Your task to perform on an android device: turn off notifications settings in the gmail app Image 0: 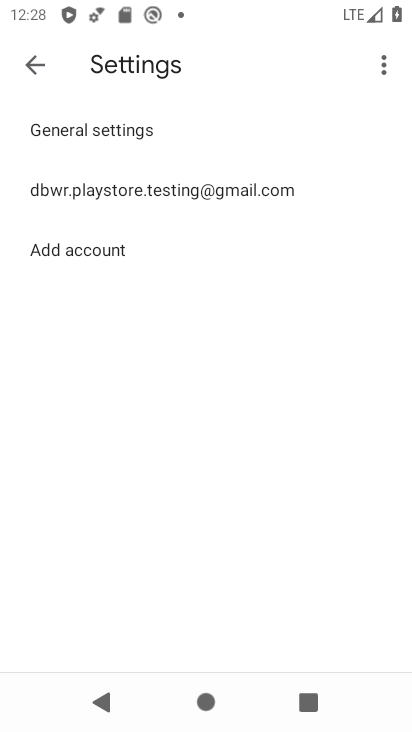
Step 0: press home button
Your task to perform on an android device: turn off notifications settings in the gmail app Image 1: 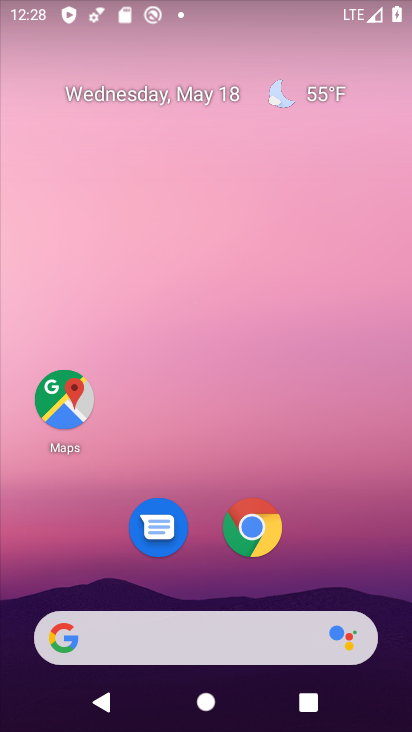
Step 1: drag from (305, 383) to (215, 19)
Your task to perform on an android device: turn off notifications settings in the gmail app Image 2: 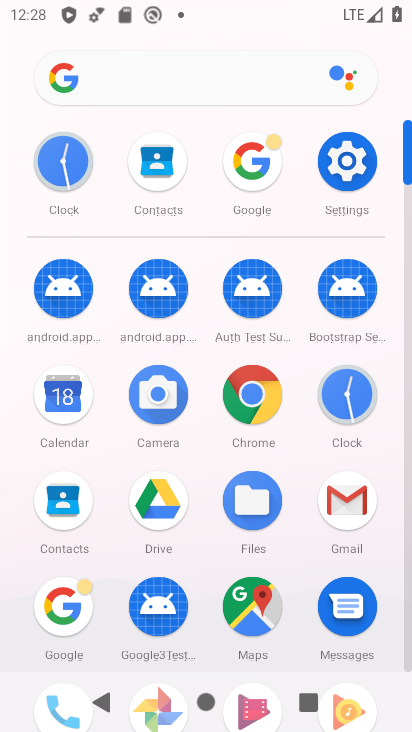
Step 2: click (333, 503)
Your task to perform on an android device: turn off notifications settings in the gmail app Image 3: 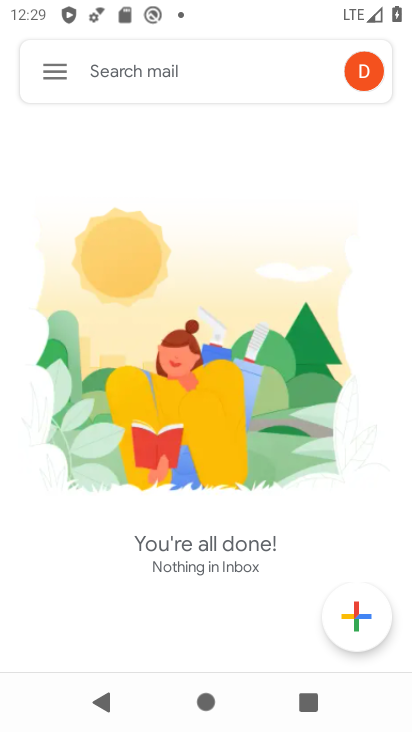
Step 3: click (57, 70)
Your task to perform on an android device: turn off notifications settings in the gmail app Image 4: 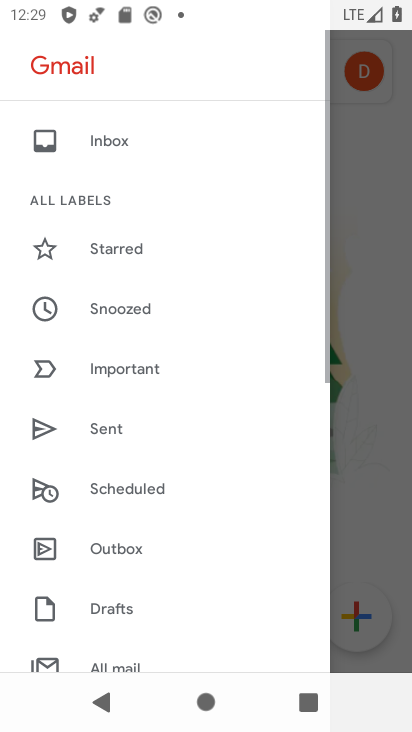
Step 4: drag from (167, 626) to (167, 193)
Your task to perform on an android device: turn off notifications settings in the gmail app Image 5: 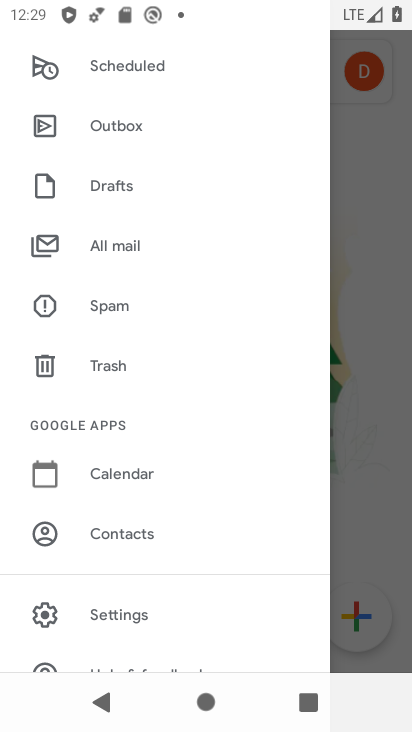
Step 5: click (133, 607)
Your task to perform on an android device: turn off notifications settings in the gmail app Image 6: 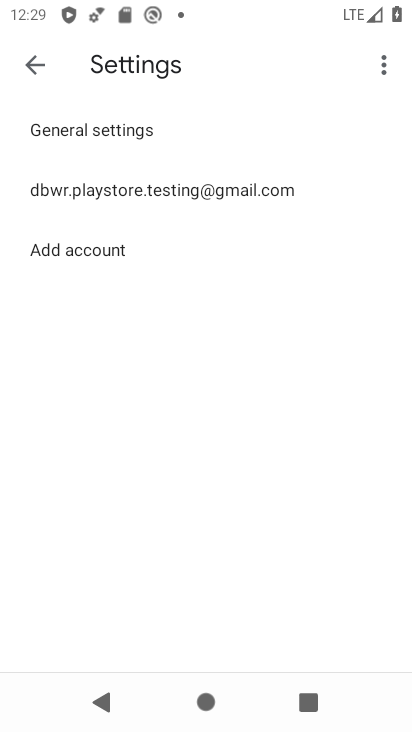
Step 6: click (209, 201)
Your task to perform on an android device: turn off notifications settings in the gmail app Image 7: 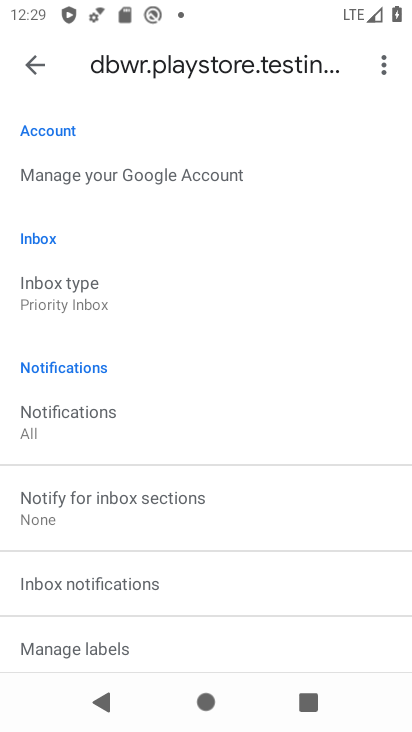
Step 7: click (171, 435)
Your task to perform on an android device: turn off notifications settings in the gmail app Image 8: 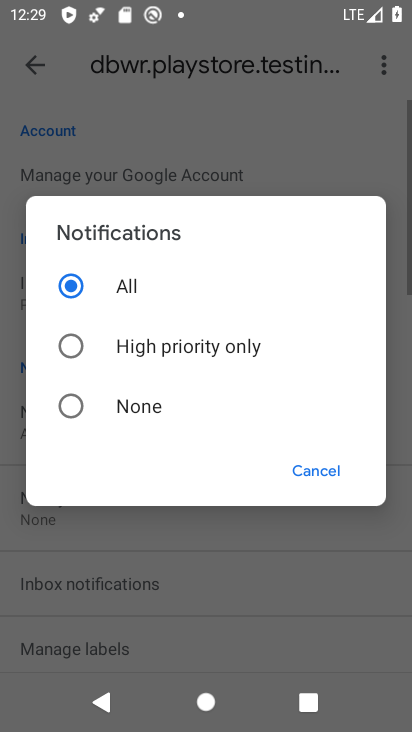
Step 8: click (120, 396)
Your task to perform on an android device: turn off notifications settings in the gmail app Image 9: 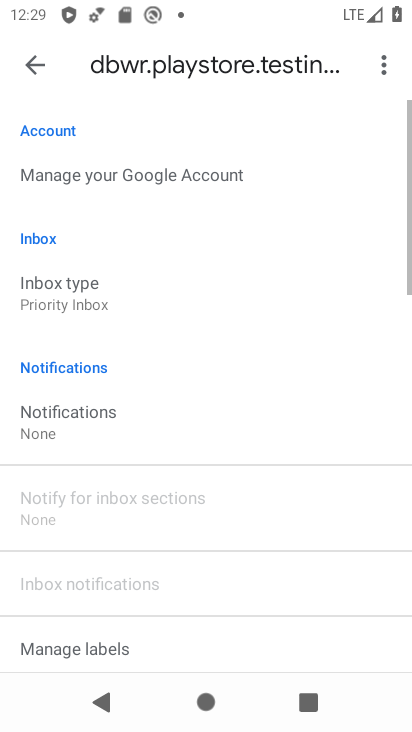
Step 9: task complete